Your task to perform on an android device: Go to Google maps Image 0: 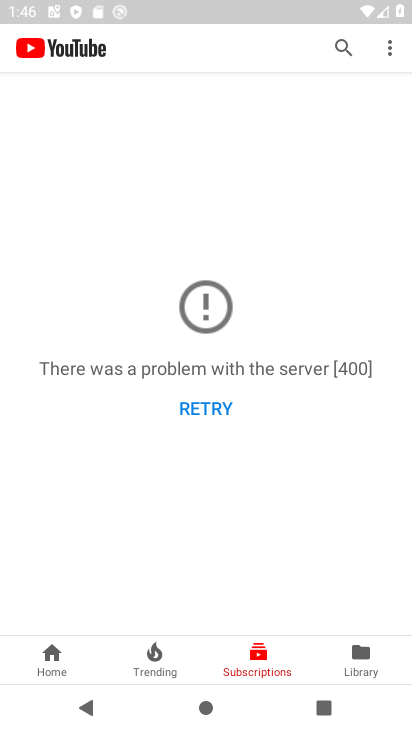
Step 0: press home button
Your task to perform on an android device: Go to Google maps Image 1: 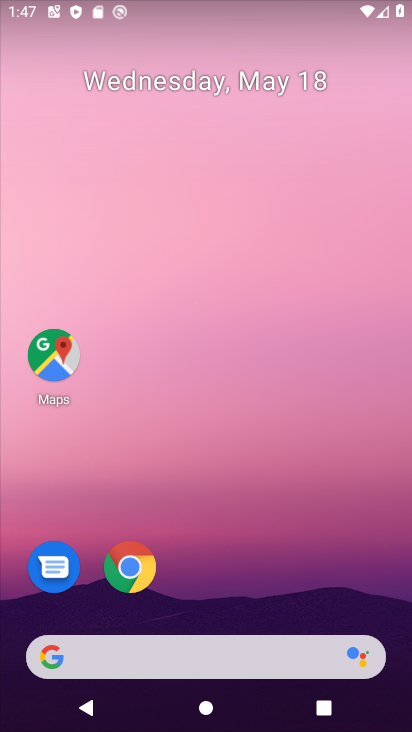
Step 1: click (214, 632)
Your task to perform on an android device: Go to Google maps Image 2: 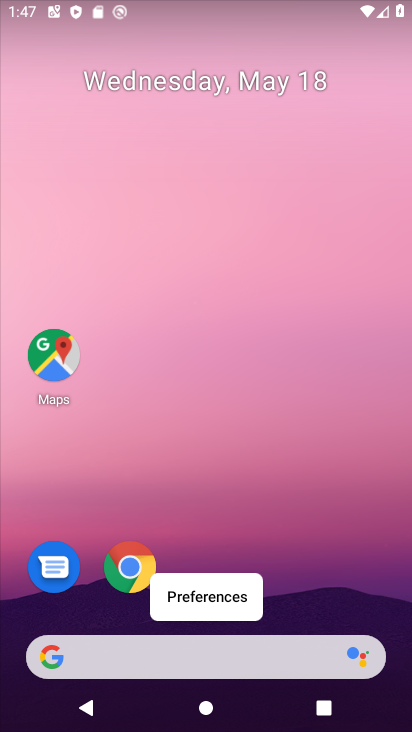
Step 2: click (41, 356)
Your task to perform on an android device: Go to Google maps Image 3: 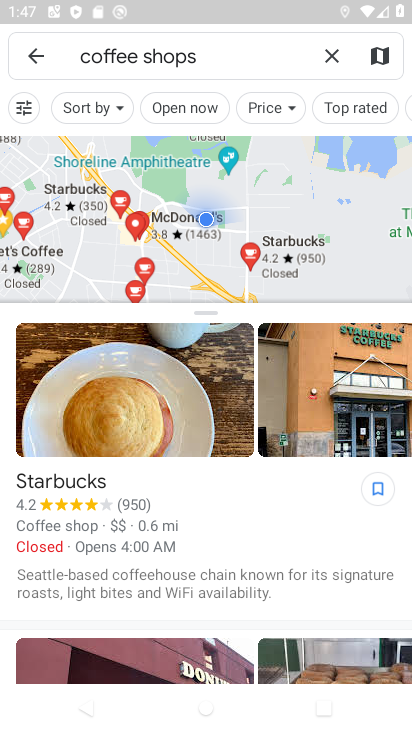
Step 3: task complete